Your task to perform on an android device: Open the calendar app, open the side menu, and click the "Day" option Image 0: 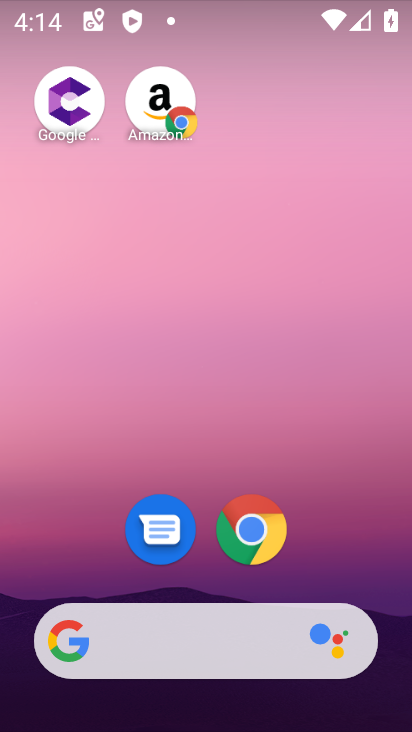
Step 0: drag from (357, 553) to (315, 0)
Your task to perform on an android device: Open the calendar app, open the side menu, and click the "Day" option Image 1: 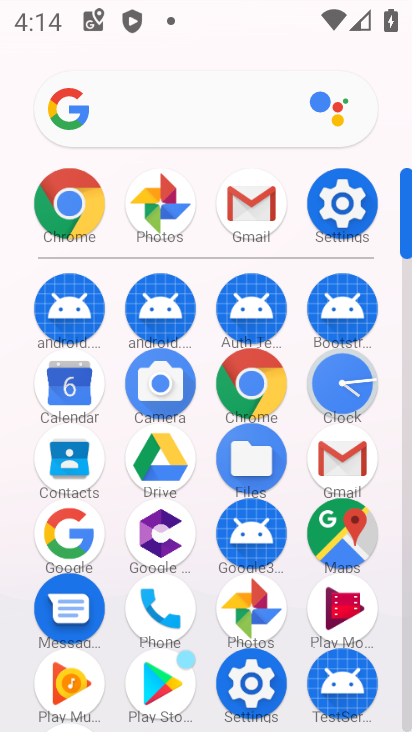
Step 1: click (74, 394)
Your task to perform on an android device: Open the calendar app, open the side menu, and click the "Day" option Image 2: 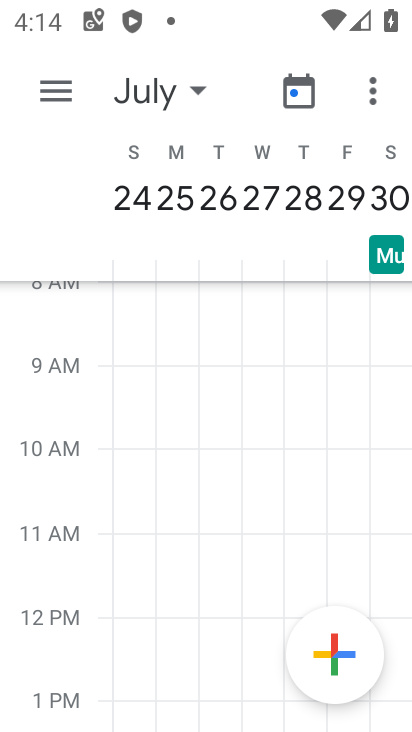
Step 2: click (66, 88)
Your task to perform on an android device: Open the calendar app, open the side menu, and click the "Day" option Image 3: 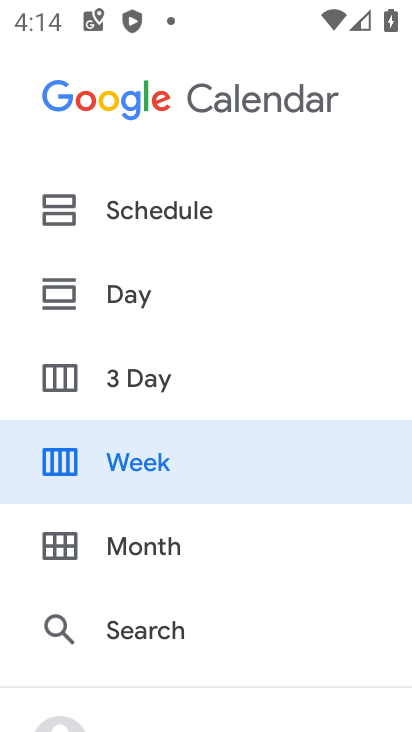
Step 3: click (117, 302)
Your task to perform on an android device: Open the calendar app, open the side menu, and click the "Day" option Image 4: 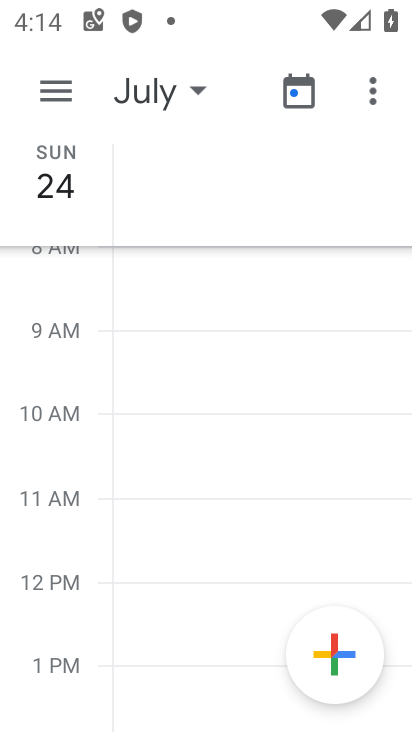
Step 4: task complete